Your task to perform on an android device: Check the news Image 0: 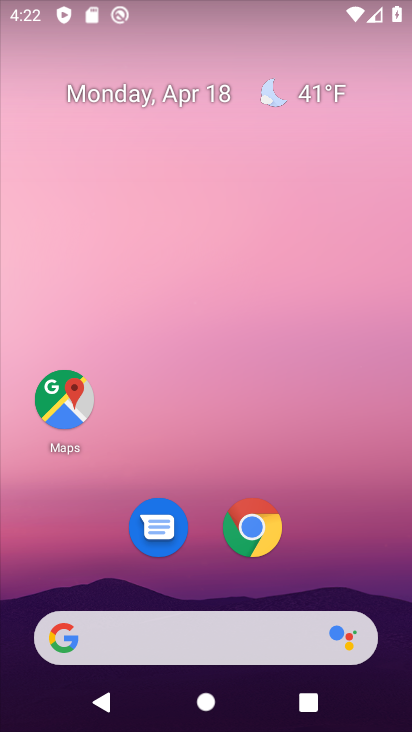
Step 0: click (262, 524)
Your task to perform on an android device: Check the news Image 1: 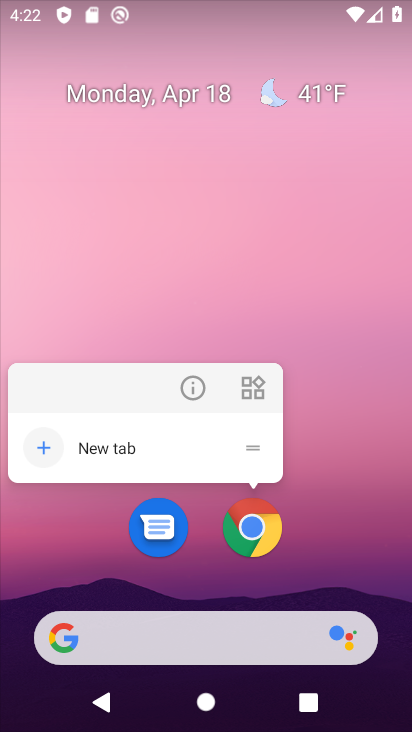
Step 1: click (256, 525)
Your task to perform on an android device: Check the news Image 2: 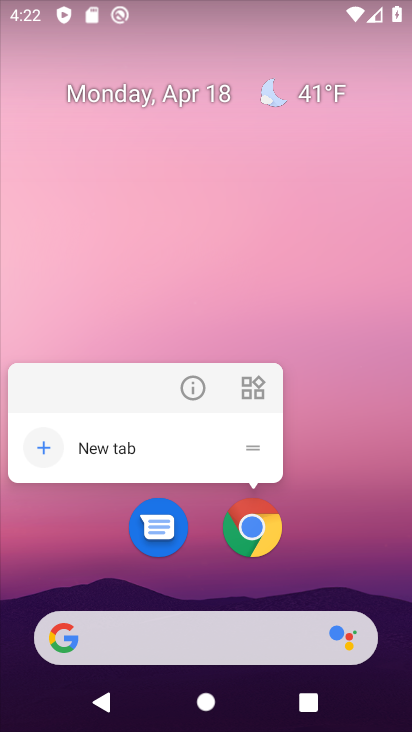
Step 2: drag from (363, 555) to (323, 97)
Your task to perform on an android device: Check the news Image 3: 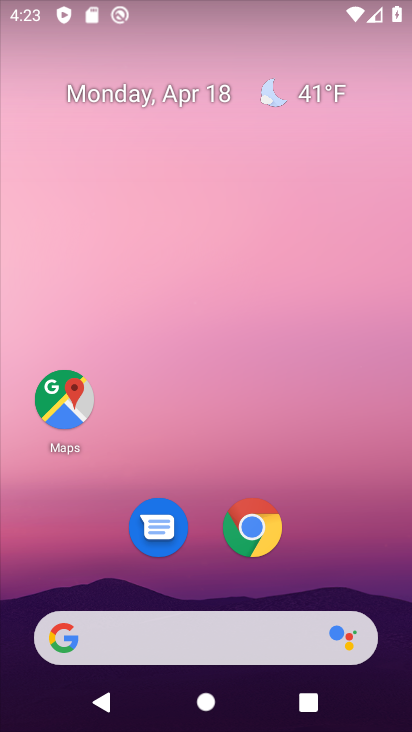
Step 3: drag from (340, 555) to (384, 198)
Your task to perform on an android device: Check the news Image 4: 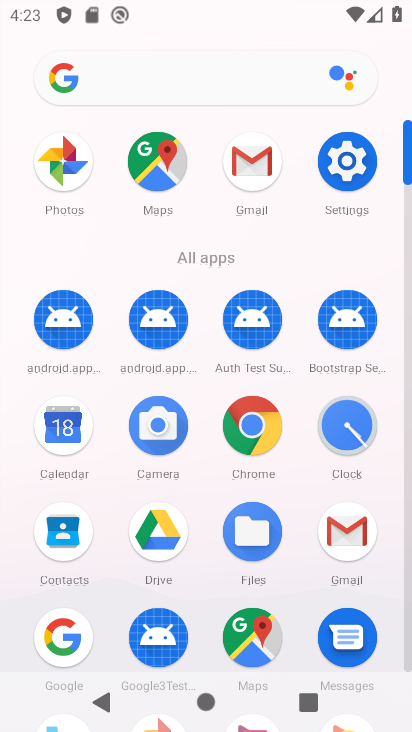
Step 4: click (256, 418)
Your task to perform on an android device: Check the news Image 5: 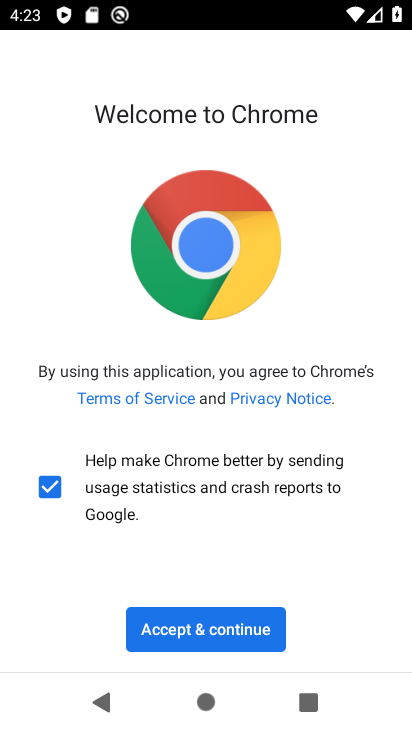
Step 5: click (244, 639)
Your task to perform on an android device: Check the news Image 6: 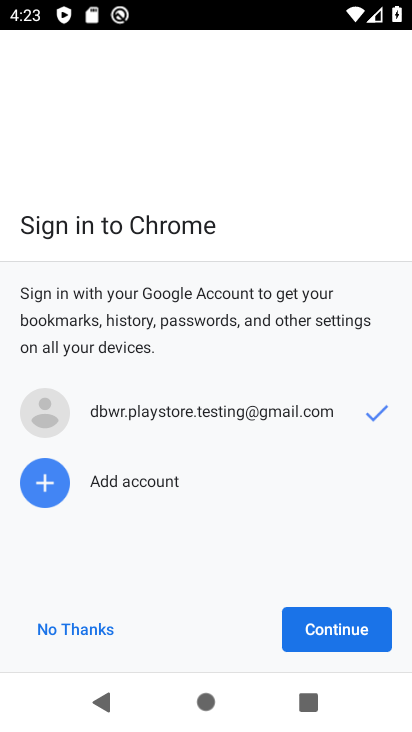
Step 6: click (377, 642)
Your task to perform on an android device: Check the news Image 7: 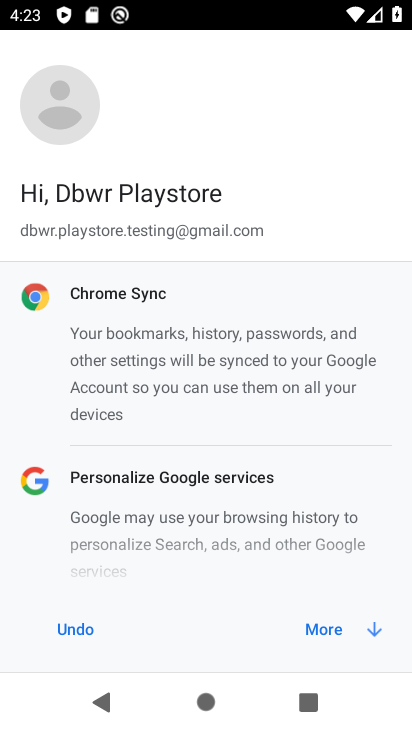
Step 7: click (368, 632)
Your task to perform on an android device: Check the news Image 8: 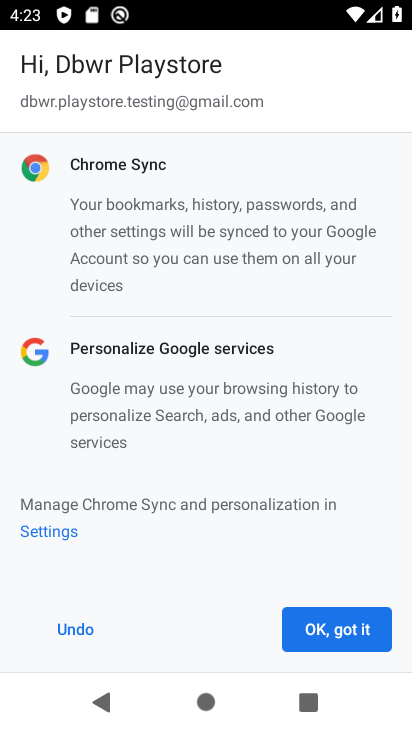
Step 8: click (368, 632)
Your task to perform on an android device: Check the news Image 9: 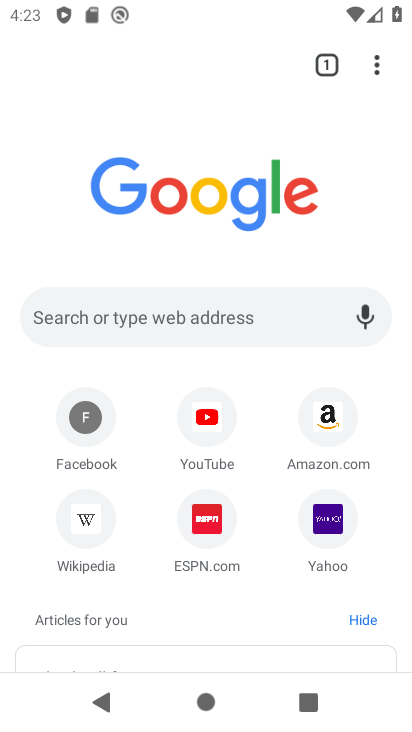
Step 9: click (235, 310)
Your task to perform on an android device: Check the news Image 10: 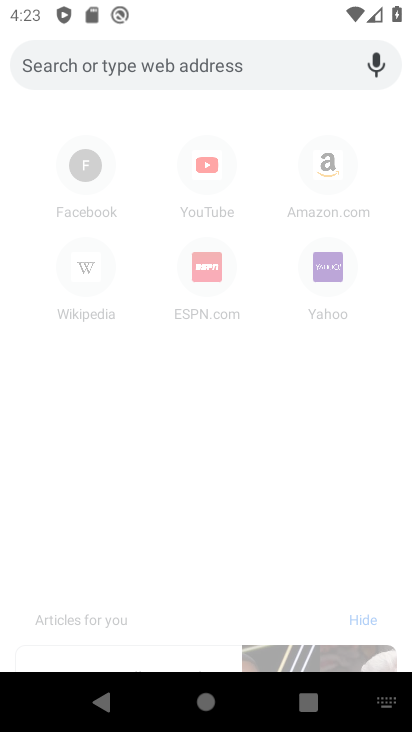
Step 10: type "news"
Your task to perform on an android device: Check the news Image 11: 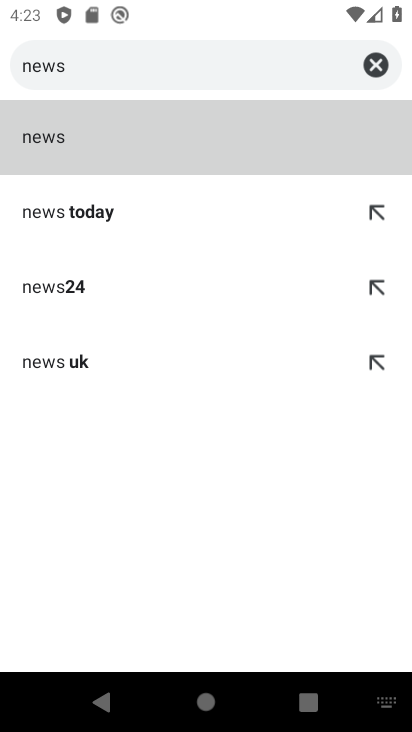
Step 11: click (51, 151)
Your task to perform on an android device: Check the news Image 12: 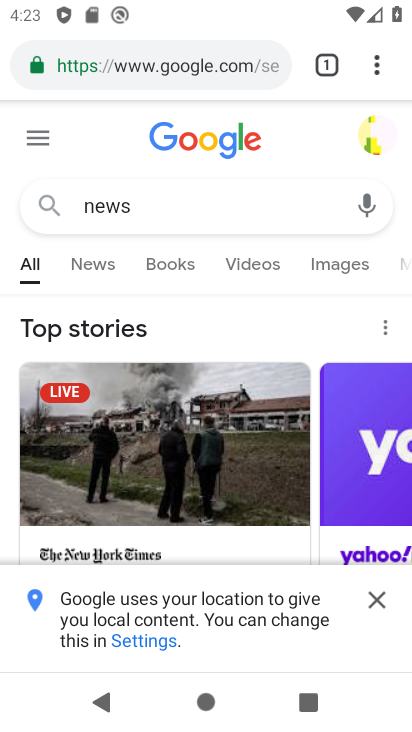
Step 12: click (102, 263)
Your task to perform on an android device: Check the news Image 13: 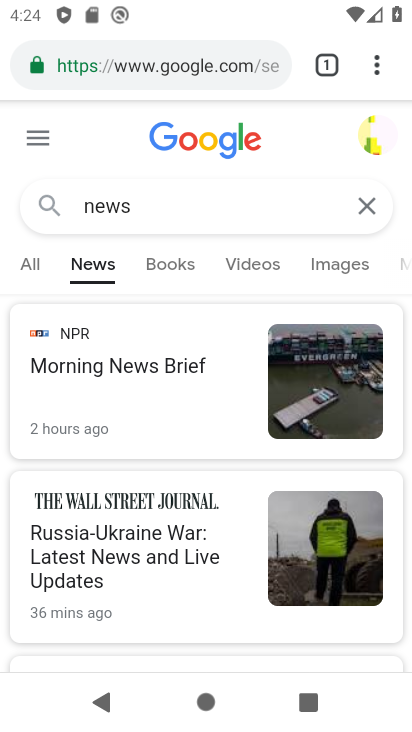
Step 13: task complete